Your task to perform on an android device: set an alarm Image 0: 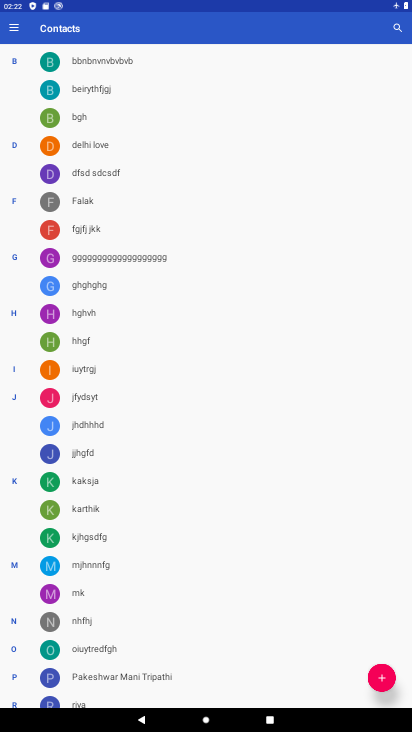
Step 0: press home button
Your task to perform on an android device: set an alarm Image 1: 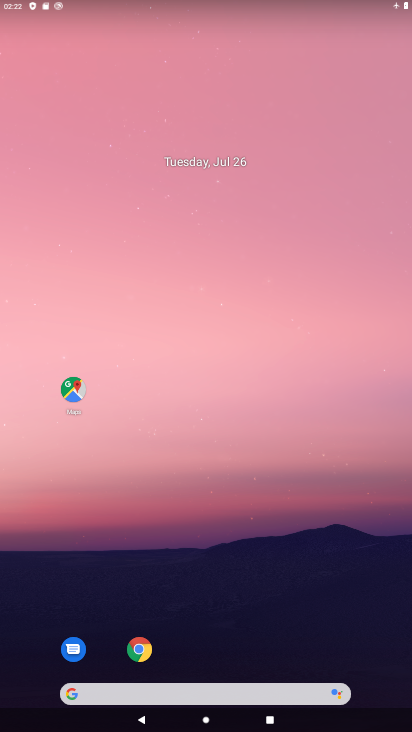
Step 1: drag from (187, 694) to (319, 195)
Your task to perform on an android device: set an alarm Image 2: 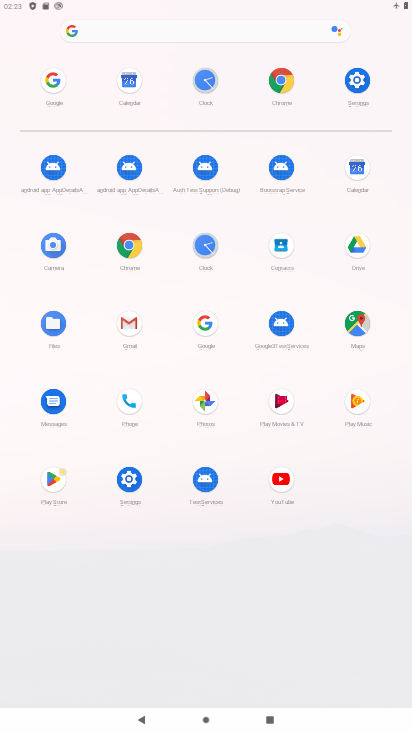
Step 2: click (202, 80)
Your task to perform on an android device: set an alarm Image 3: 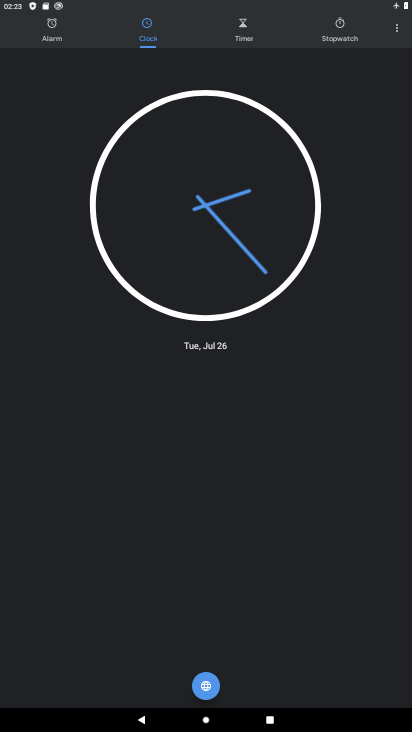
Step 3: click (53, 27)
Your task to perform on an android device: set an alarm Image 4: 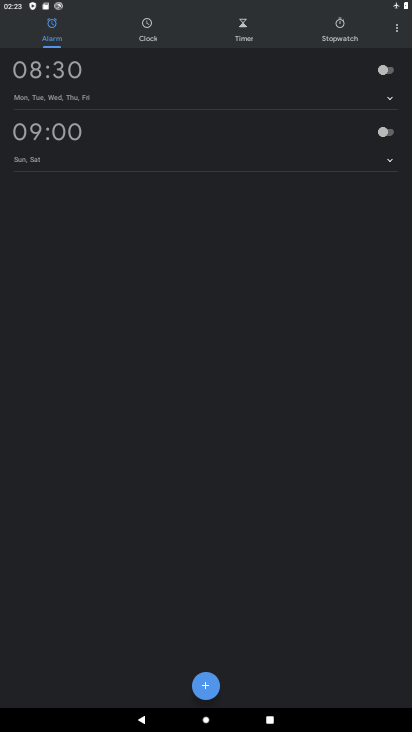
Step 4: click (206, 684)
Your task to perform on an android device: set an alarm Image 5: 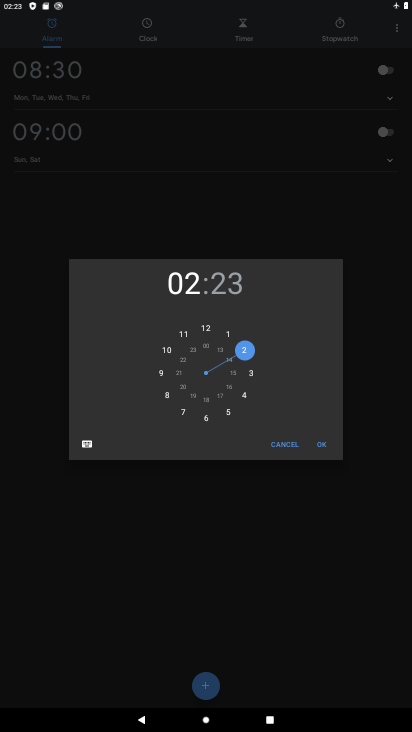
Step 5: click (177, 374)
Your task to perform on an android device: set an alarm Image 6: 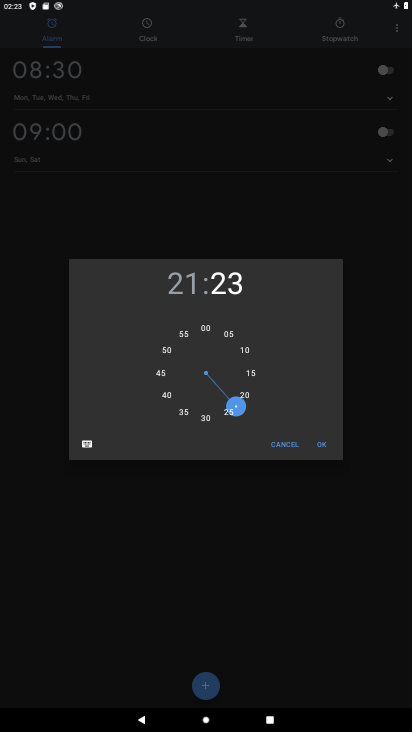
Step 6: click (254, 372)
Your task to perform on an android device: set an alarm Image 7: 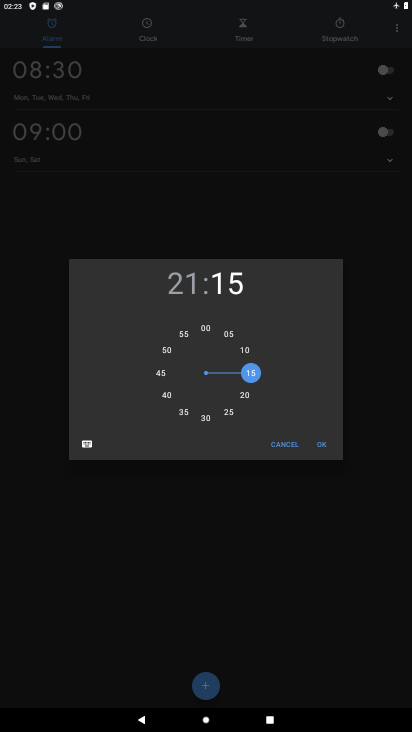
Step 7: click (318, 441)
Your task to perform on an android device: set an alarm Image 8: 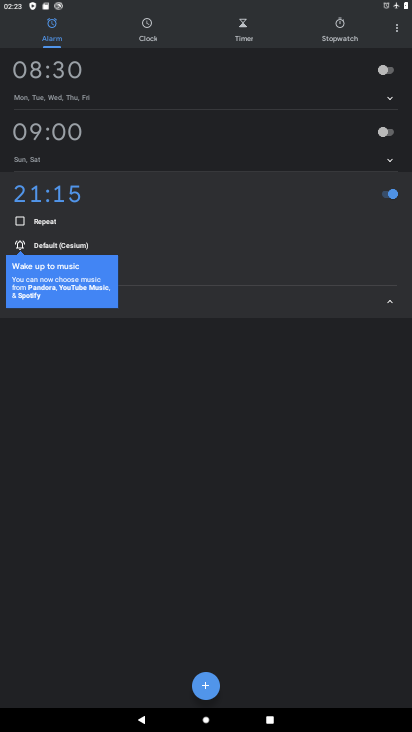
Step 8: click (389, 303)
Your task to perform on an android device: set an alarm Image 9: 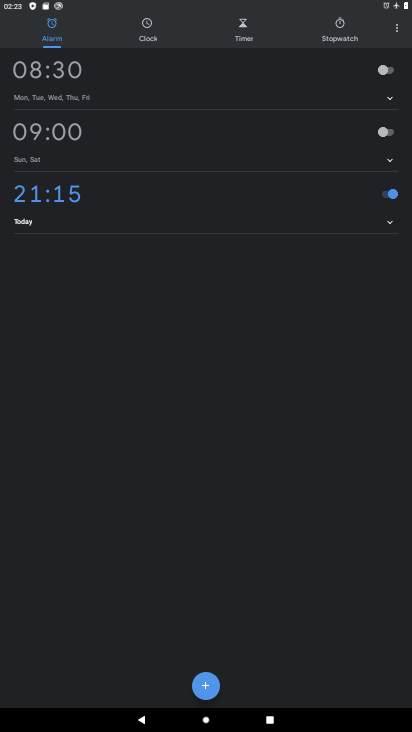
Step 9: task complete